Your task to perform on an android device: Open notification settings Image 0: 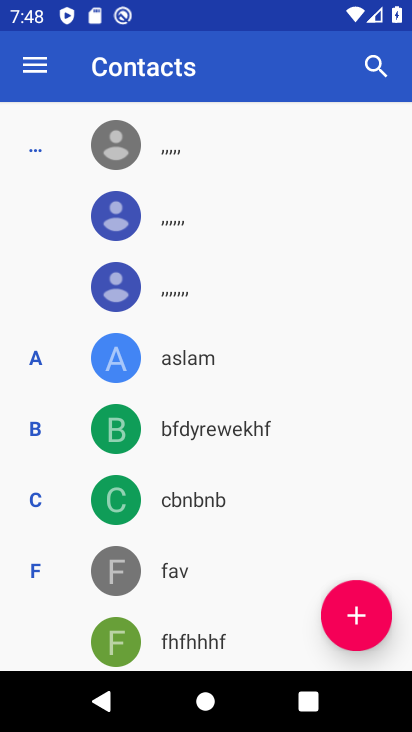
Step 0: press home button
Your task to perform on an android device: Open notification settings Image 1: 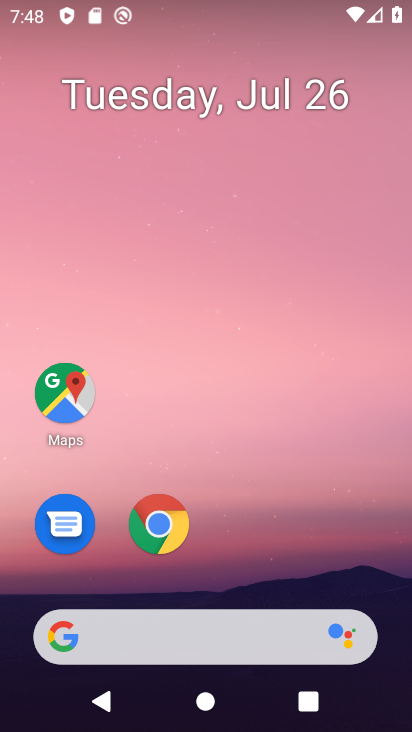
Step 1: drag from (281, 538) to (287, 62)
Your task to perform on an android device: Open notification settings Image 2: 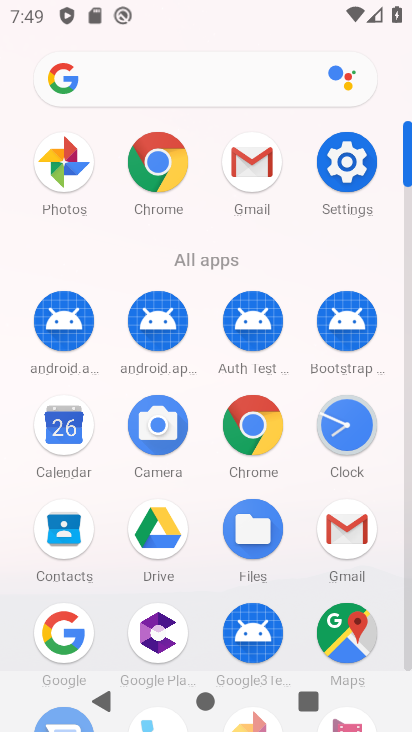
Step 2: click (354, 155)
Your task to perform on an android device: Open notification settings Image 3: 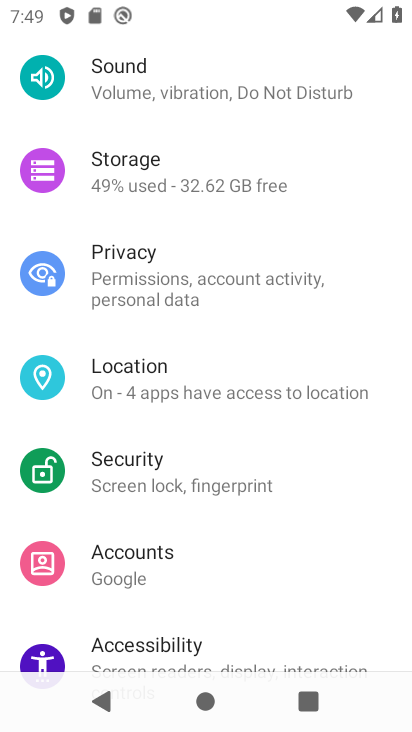
Step 3: drag from (213, 129) to (235, 551)
Your task to perform on an android device: Open notification settings Image 4: 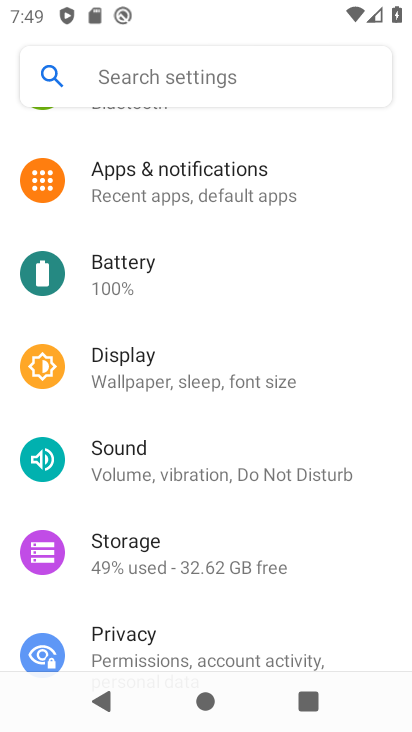
Step 4: click (185, 176)
Your task to perform on an android device: Open notification settings Image 5: 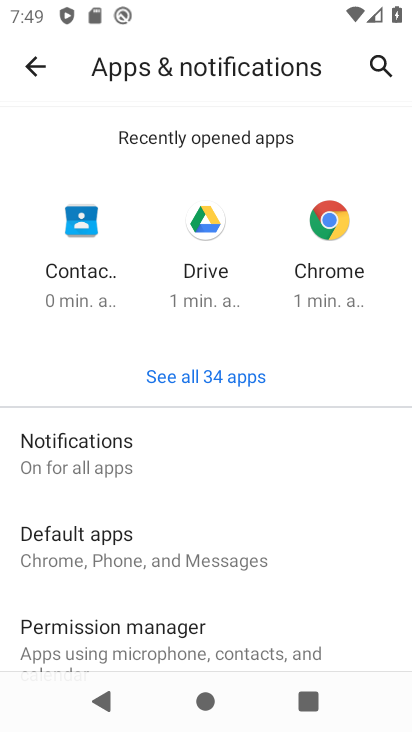
Step 5: click (31, 65)
Your task to perform on an android device: Open notification settings Image 6: 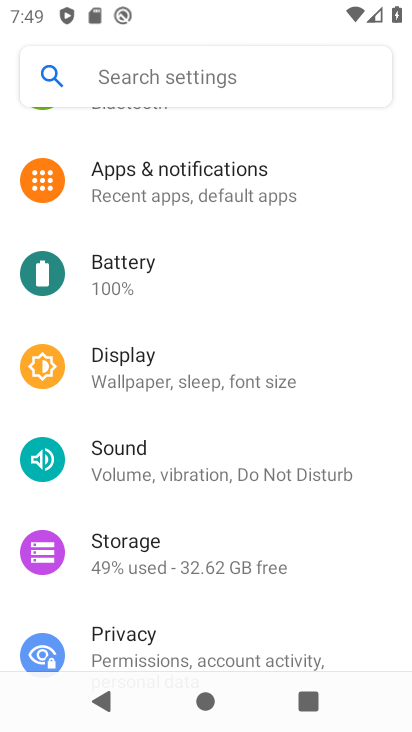
Step 6: task complete